Your task to perform on an android device: Open calendar and show me the second week of next month Image 0: 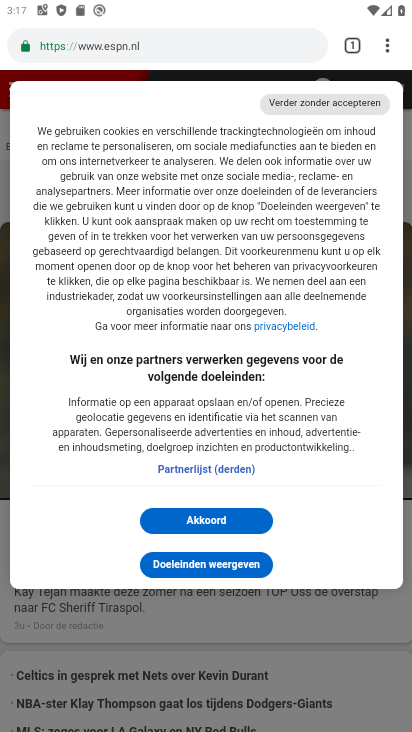
Step 0: press home button
Your task to perform on an android device: Open calendar and show me the second week of next month Image 1: 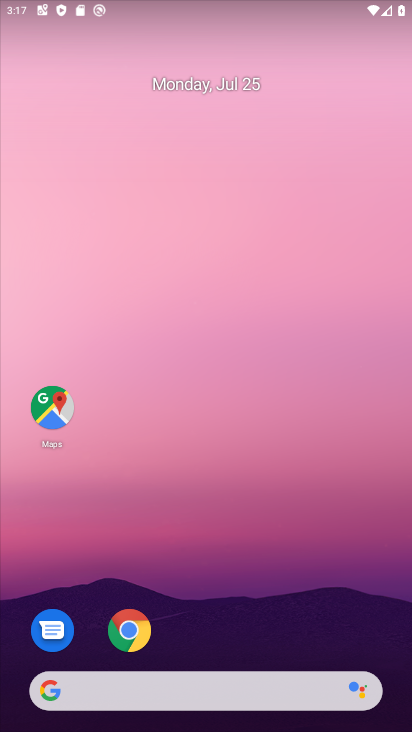
Step 1: drag from (215, 678) to (211, 164)
Your task to perform on an android device: Open calendar and show me the second week of next month Image 2: 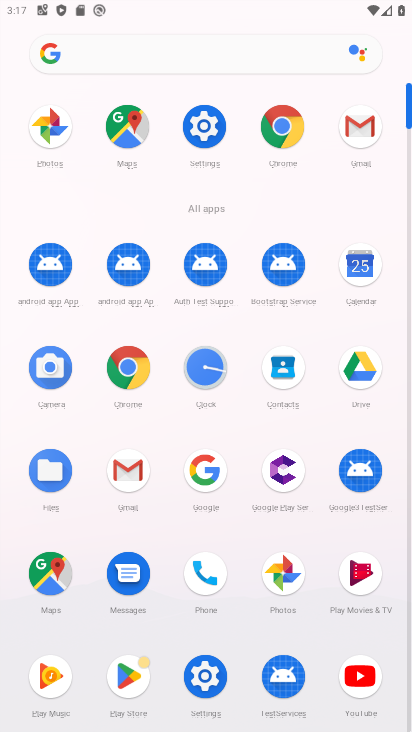
Step 2: click (370, 269)
Your task to perform on an android device: Open calendar and show me the second week of next month Image 3: 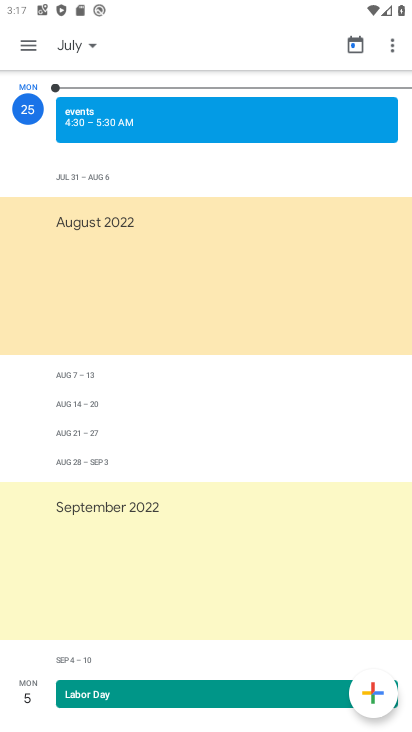
Step 3: click (21, 40)
Your task to perform on an android device: Open calendar and show me the second week of next month Image 4: 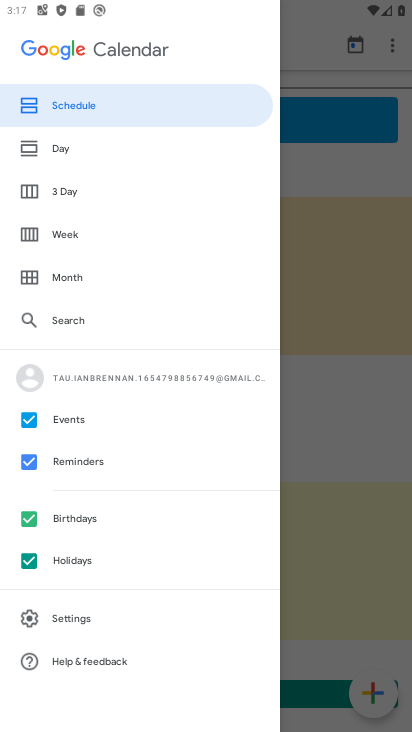
Step 4: click (81, 272)
Your task to perform on an android device: Open calendar and show me the second week of next month Image 5: 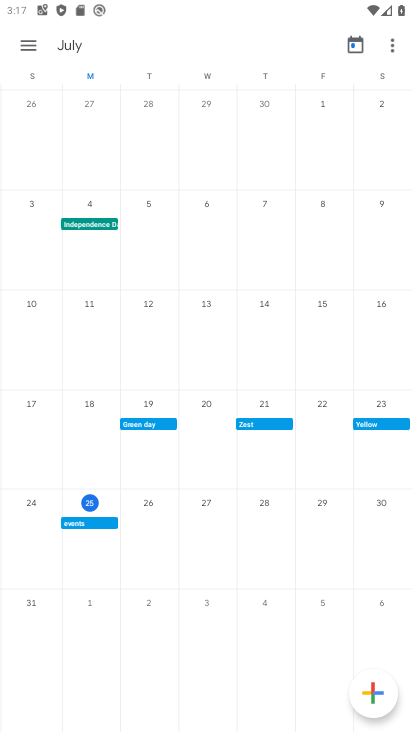
Step 5: task complete